Your task to perform on an android device: What's the weather? Image 0: 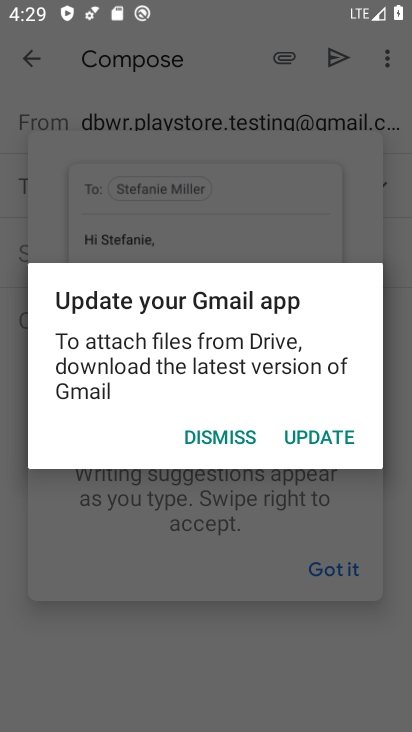
Step 0: press home button
Your task to perform on an android device: What's the weather? Image 1: 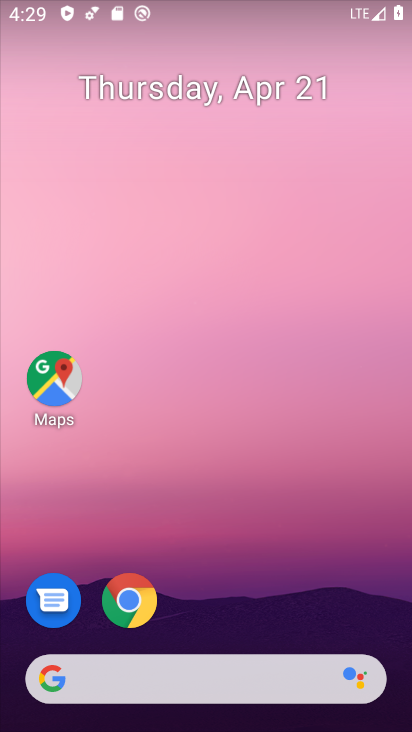
Step 1: drag from (268, 582) to (261, 35)
Your task to perform on an android device: What's the weather? Image 2: 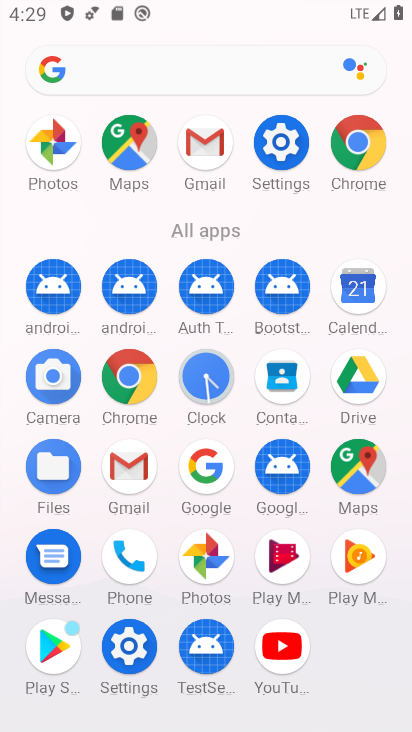
Step 2: click (127, 81)
Your task to perform on an android device: What's the weather? Image 3: 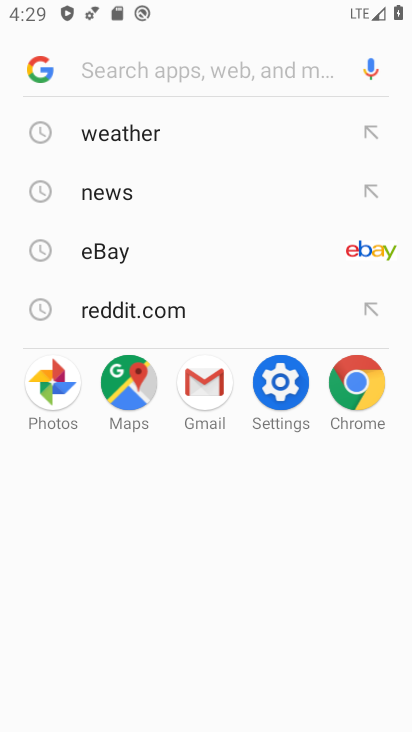
Step 3: type "weather"
Your task to perform on an android device: What's the weather? Image 4: 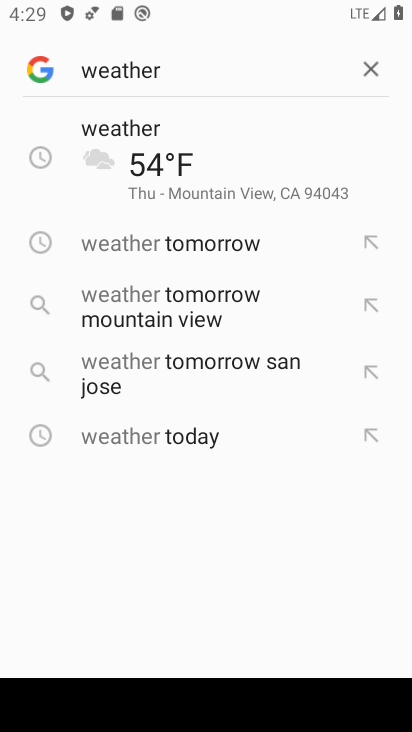
Step 4: click (158, 200)
Your task to perform on an android device: What's the weather? Image 5: 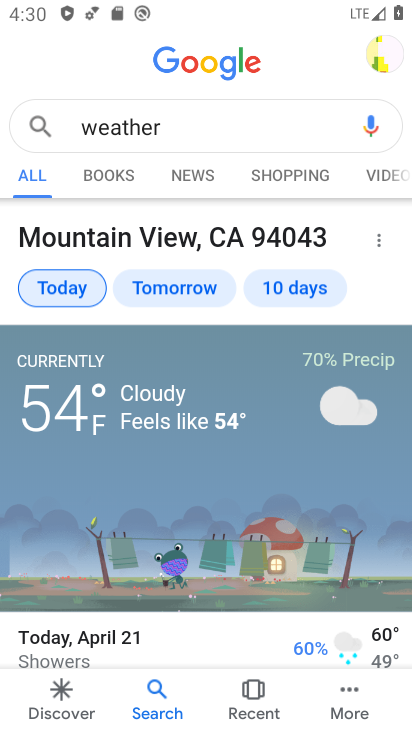
Step 5: task complete